Your task to perform on an android device: clear all cookies in the chrome app Image 0: 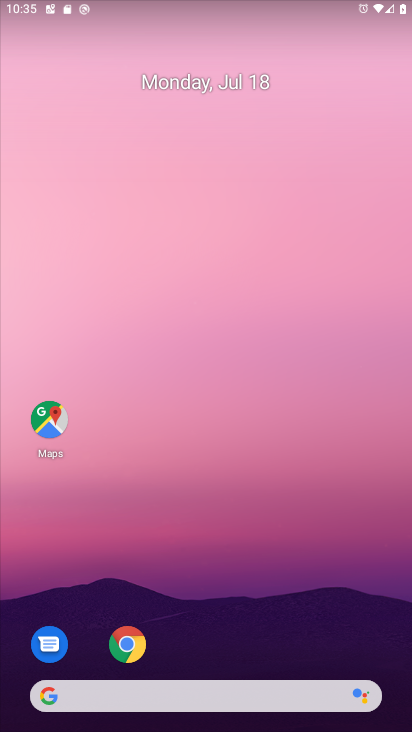
Step 0: drag from (250, 652) to (255, 311)
Your task to perform on an android device: clear all cookies in the chrome app Image 1: 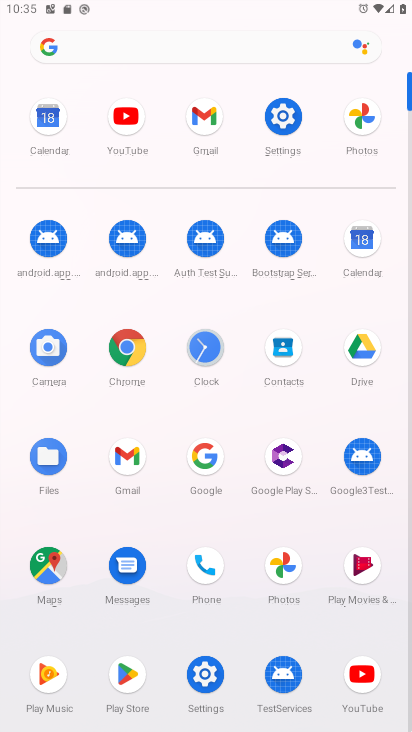
Step 1: click (100, 369)
Your task to perform on an android device: clear all cookies in the chrome app Image 2: 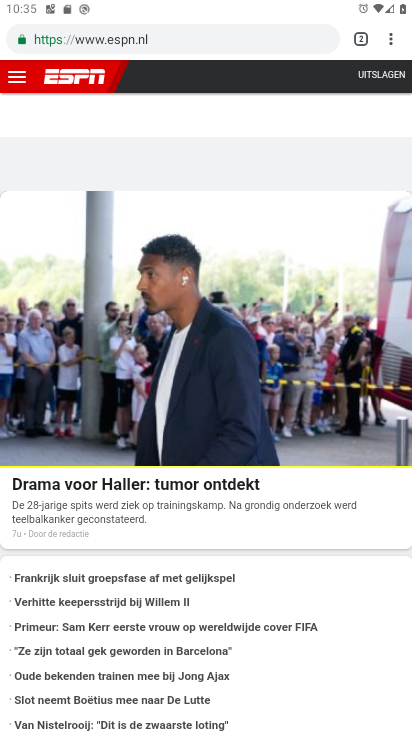
Step 2: task complete